Your task to perform on an android device: Go to battery settings Image 0: 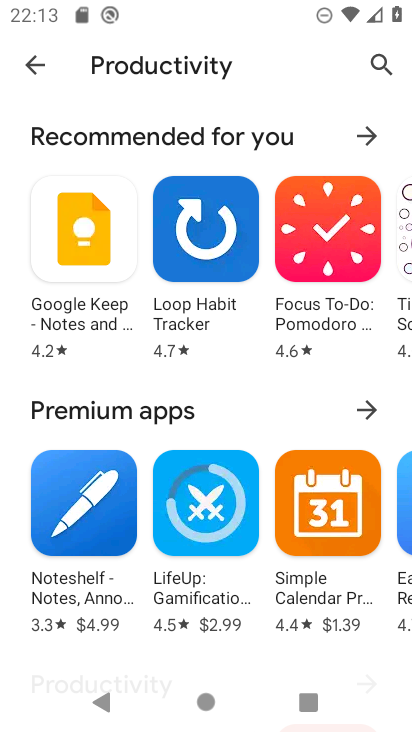
Step 0: press home button
Your task to perform on an android device: Go to battery settings Image 1: 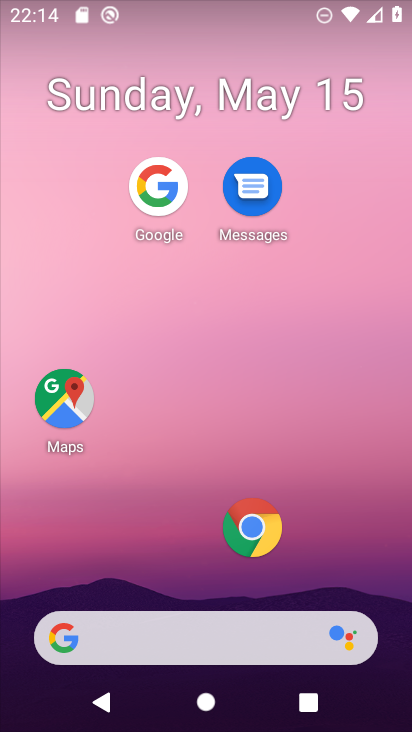
Step 1: drag from (190, 631) to (314, 210)
Your task to perform on an android device: Go to battery settings Image 2: 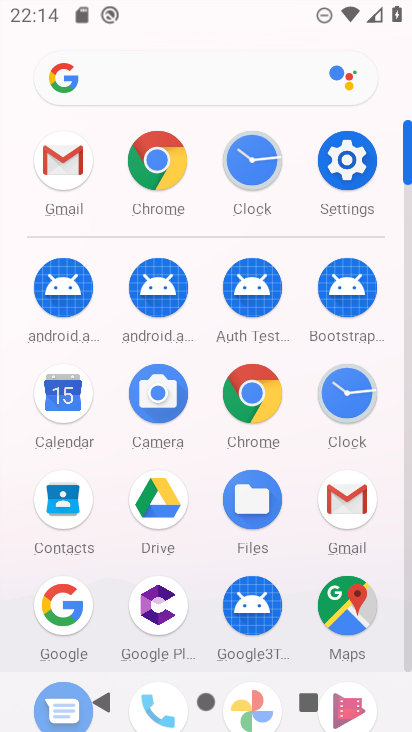
Step 2: click (351, 169)
Your task to perform on an android device: Go to battery settings Image 3: 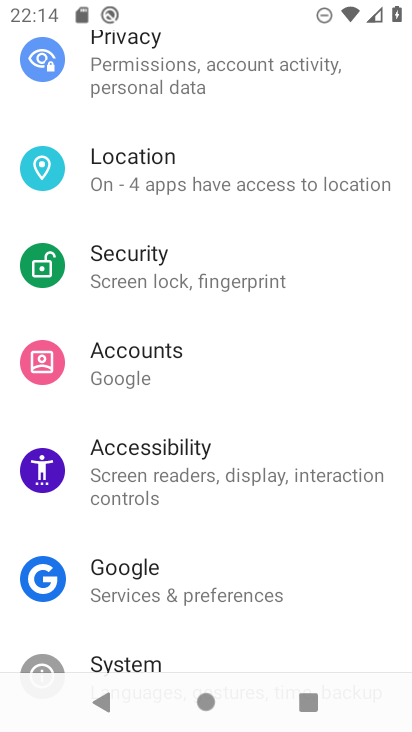
Step 3: drag from (314, 131) to (279, 633)
Your task to perform on an android device: Go to battery settings Image 4: 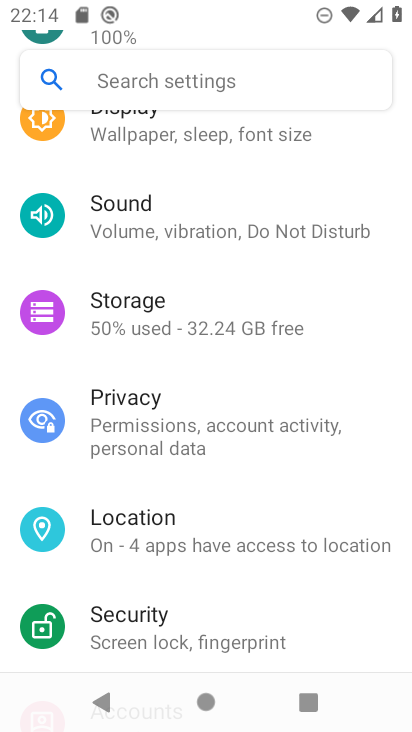
Step 4: drag from (298, 184) to (276, 503)
Your task to perform on an android device: Go to battery settings Image 5: 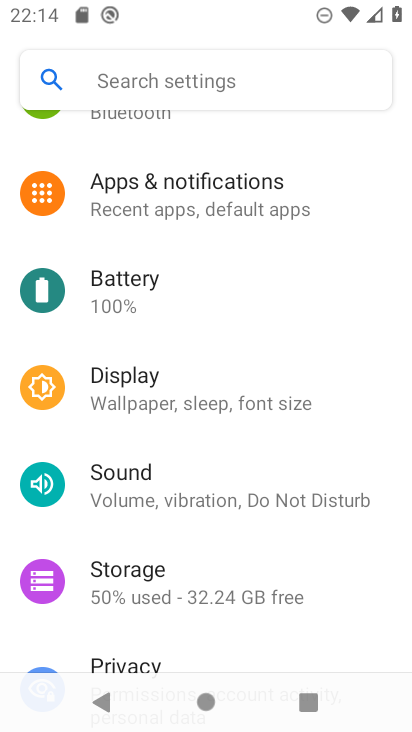
Step 5: click (142, 295)
Your task to perform on an android device: Go to battery settings Image 6: 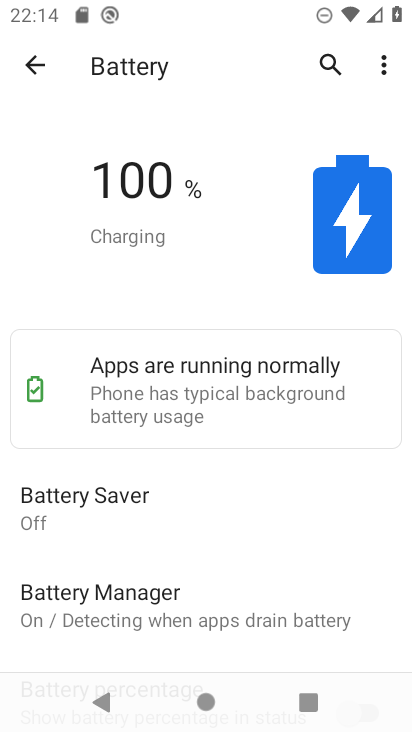
Step 6: task complete